Your task to perform on an android device: Set the phone to "Do not disturb". Image 0: 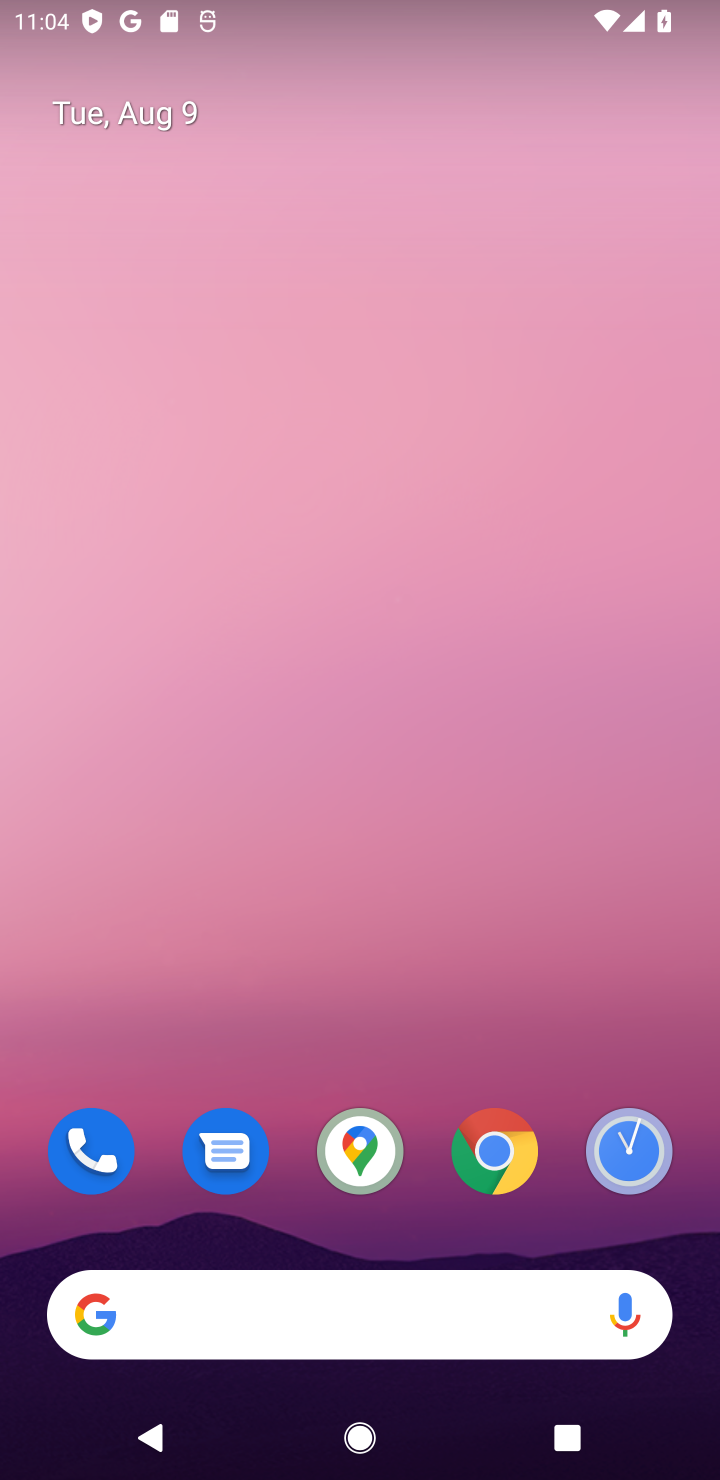
Step 0: drag from (361, 7) to (170, 1278)
Your task to perform on an android device: Set the phone to "Do not disturb". Image 1: 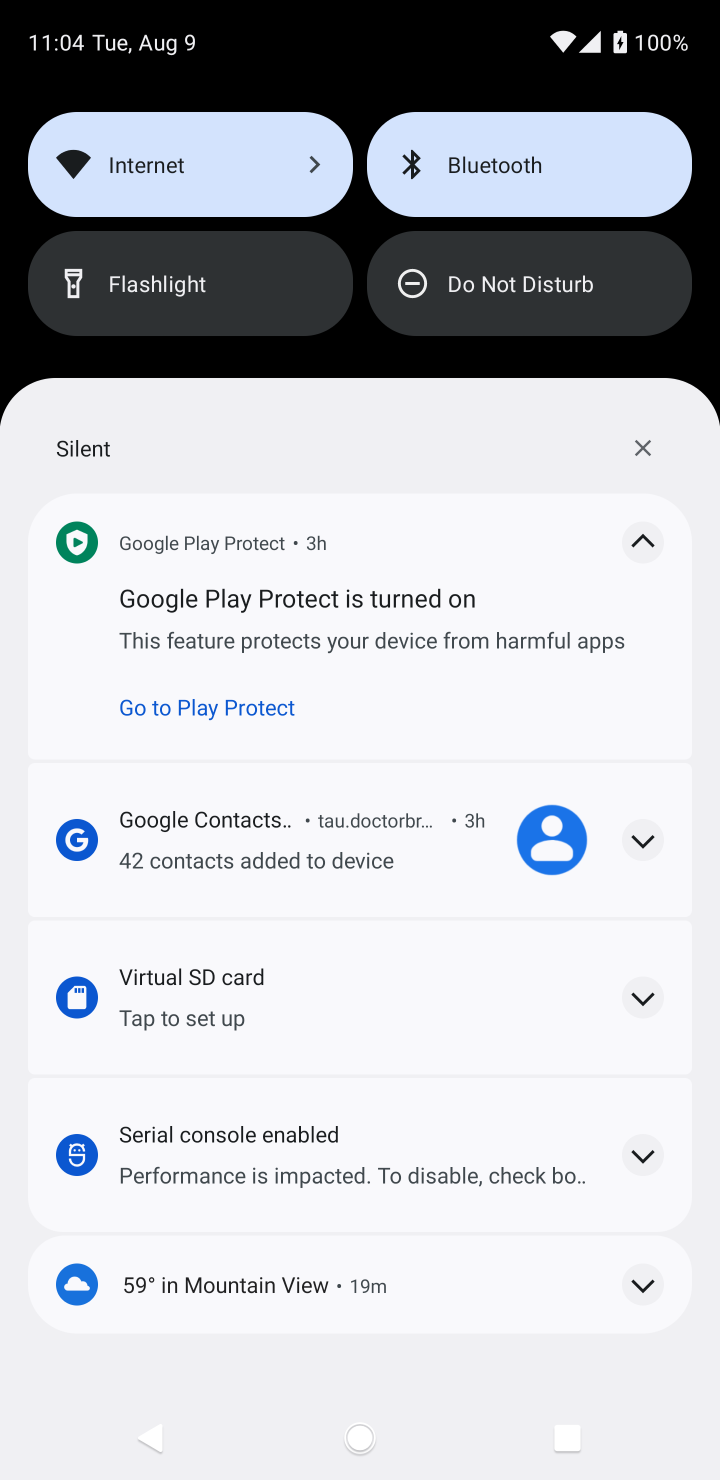
Step 1: click (497, 328)
Your task to perform on an android device: Set the phone to "Do not disturb". Image 2: 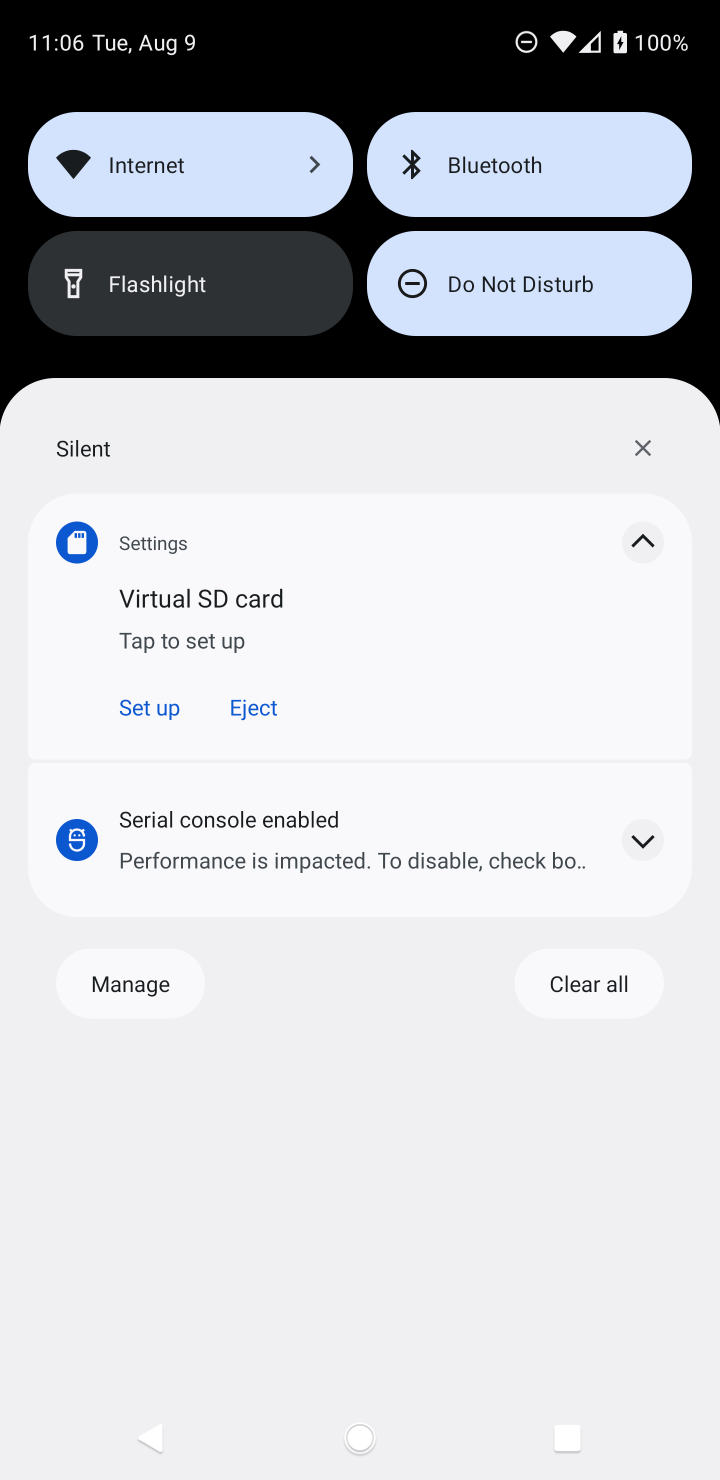
Step 2: task complete